Your task to perform on an android device: find snoozed emails in the gmail app Image 0: 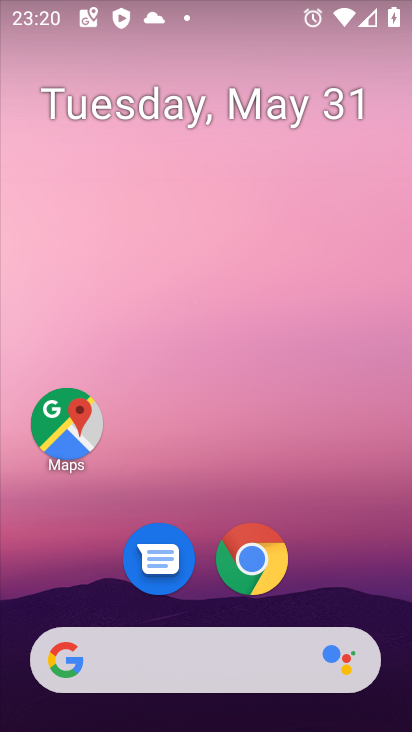
Step 0: drag from (312, 575) to (308, 61)
Your task to perform on an android device: find snoozed emails in the gmail app Image 1: 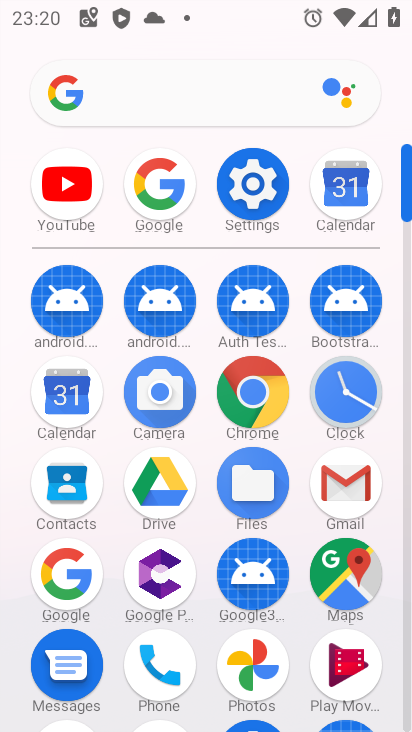
Step 1: click (348, 481)
Your task to perform on an android device: find snoozed emails in the gmail app Image 2: 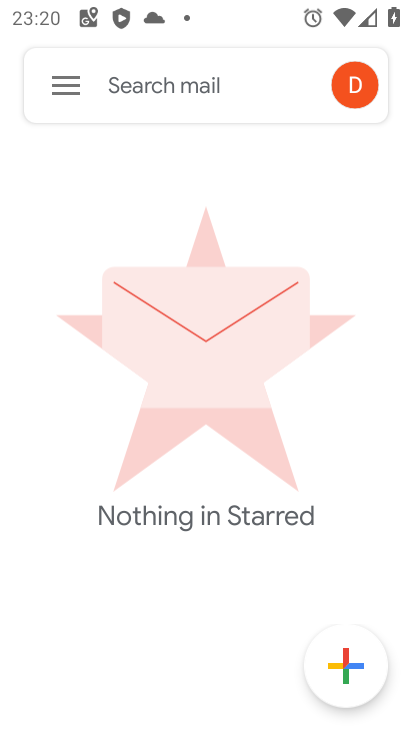
Step 2: click (67, 78)
Your task to perform on an android device: find snoozed emails in the gmail app Image 3: 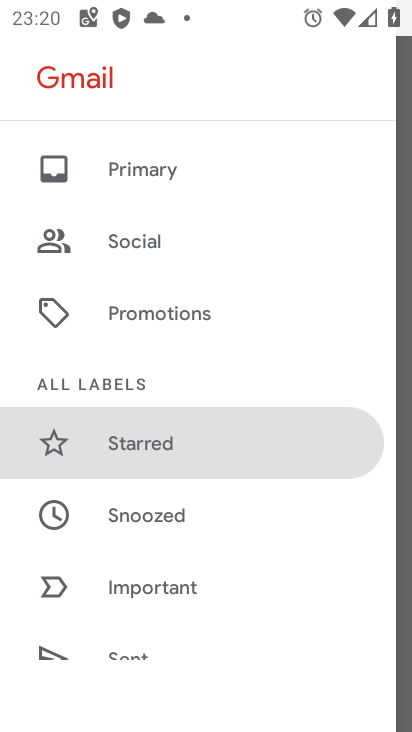
Step 3: drag from (162, 550) to (186, 303)
Your task to perform on an android device: find snoozed emails in the gmail app Image 4: 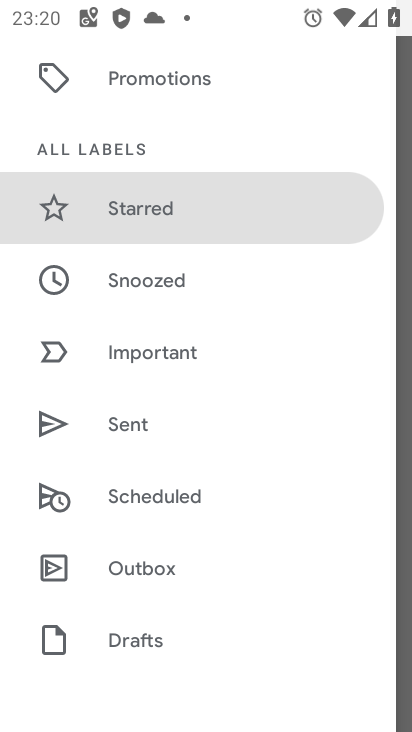
Step 4: drag from (157, 529) to (161, 240)
Your task to perform on an android device: find snoozed emails in the gmail app Image 5: 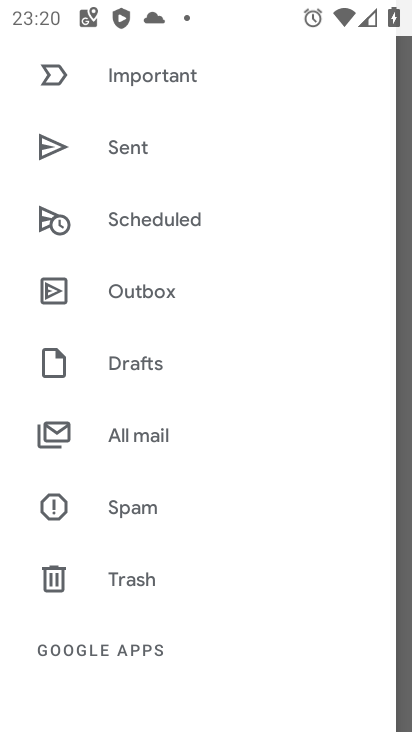
Step 5: click (136, 438)
Your task to perform on an android device: find snoozed emails in the gmail app Image 6: 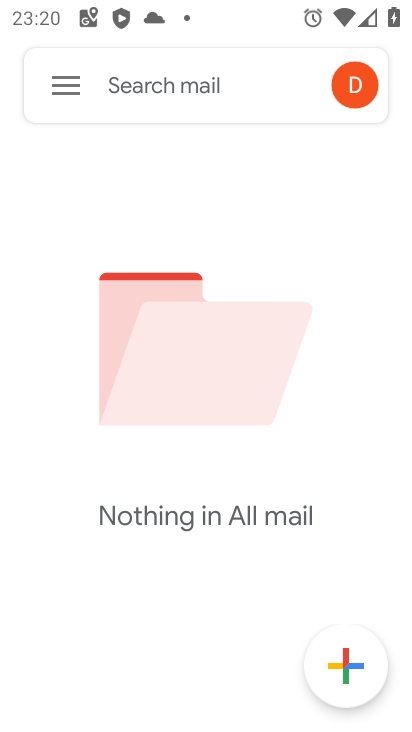
Step 6: task complete